Your task to perform on an android device: turn off wifi Image 0: 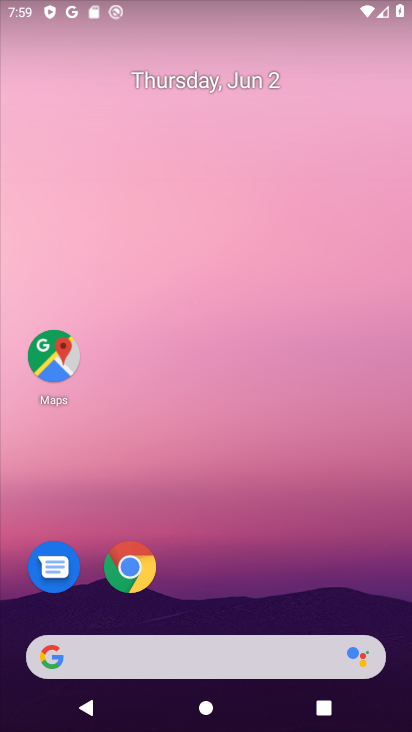
Step 0: drag from (320, 561) to (220, 151)
Your task to perform on an android device: turn off wifi Image 1: 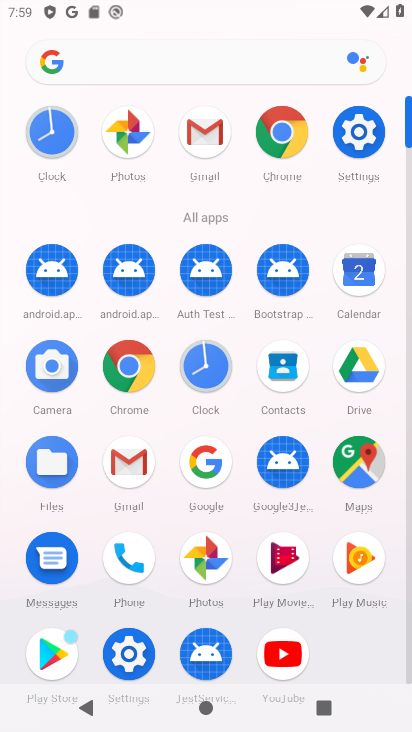
Step 1: click (361, 128)
Your task to perform on an android device: turn off wifi Image 2: 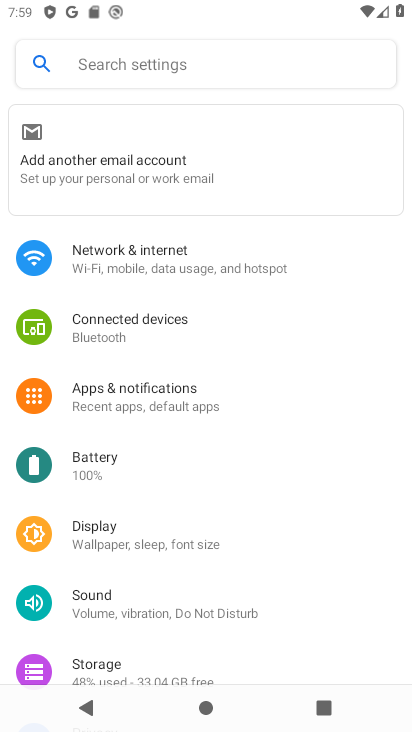
Step 2: click (131, 247)
Your task to perform on an android device: turn off wifi Image 3: 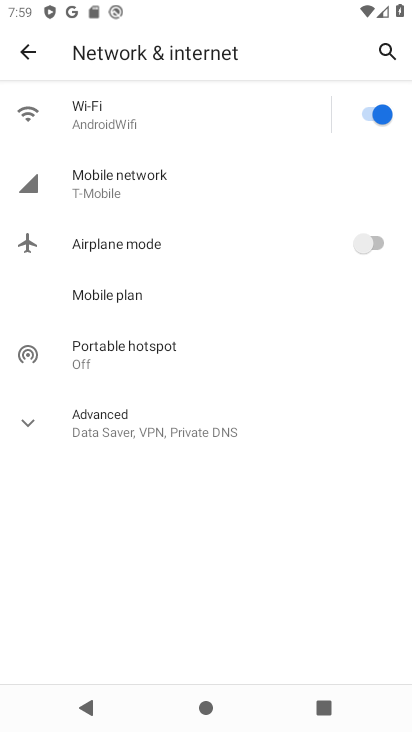
Step 3: click (368, 119)
Your task to perform on an android device: turn off wifi Image 4: 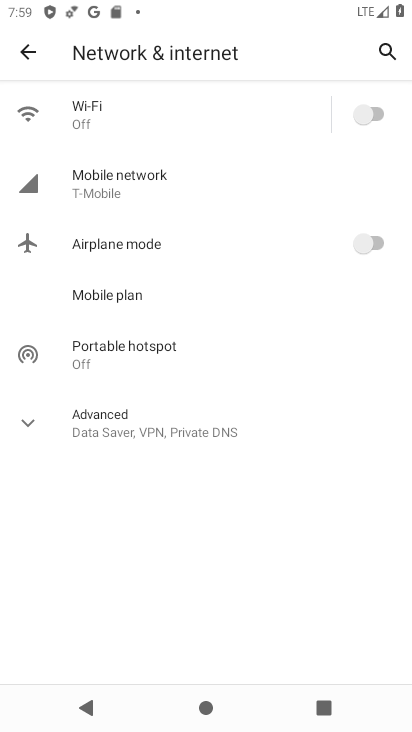
Step 4: task complete